Your task to perform on an android device: add a contact in the contacts app Image 0: 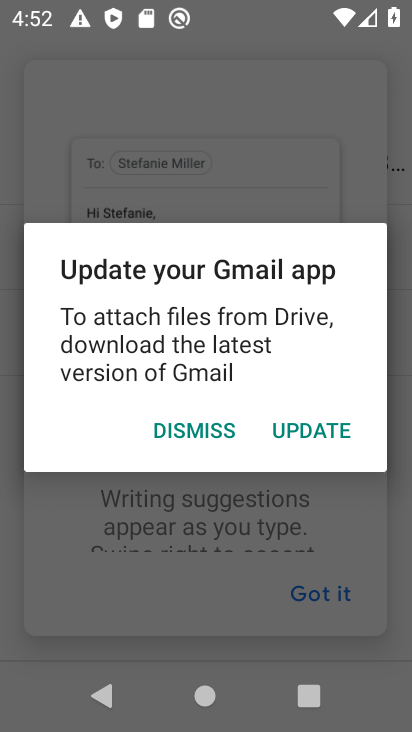
Step 0: click (194, 694)
Your task to perform on an android device: add a contact in the contacts app Image 1: 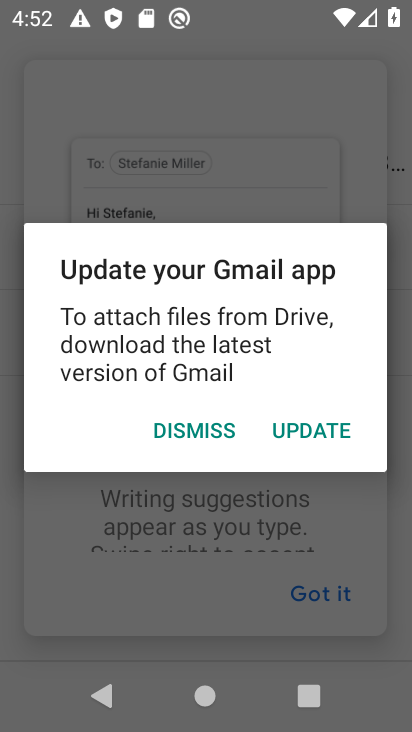
Step 1: click (163, 426)
Your task to perform on an android device: add a contact in the contacts app Image 2: 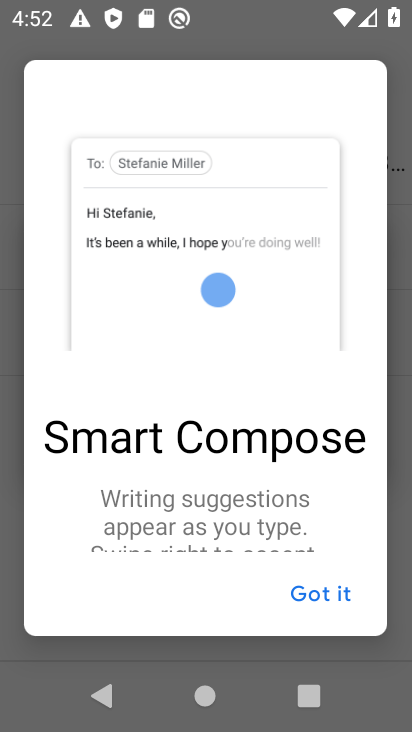
Step 2: click (207, 699)
Your task to perform on an android device: add a contact in the contacts app Image 3: 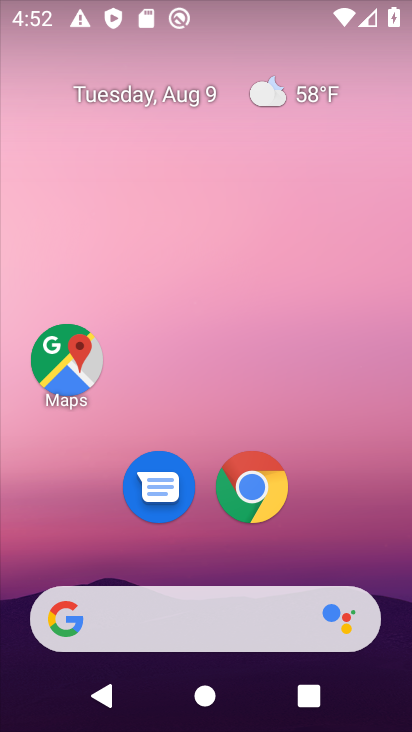
Step 3: drag from (70, 564) to (91, 133)
Your task to perform on an android device: add a contact in the contacts app Image 4: 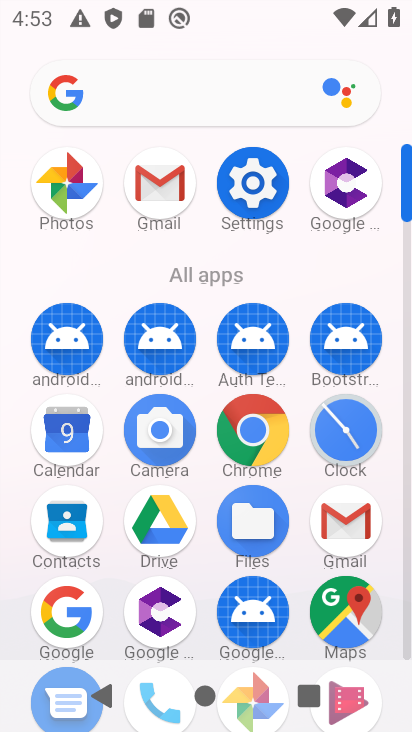
Step 4: click (150, 702)
Your task to perform on an android device: add a contact in the contacts app Image 5: 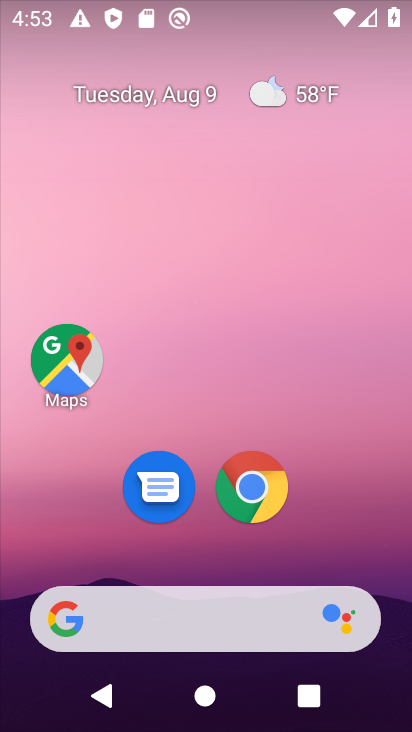
Step 5: drag from (176, 193) to (172, 99)
Your task to perform on an android device: add a contact in the contacts app Image 6: 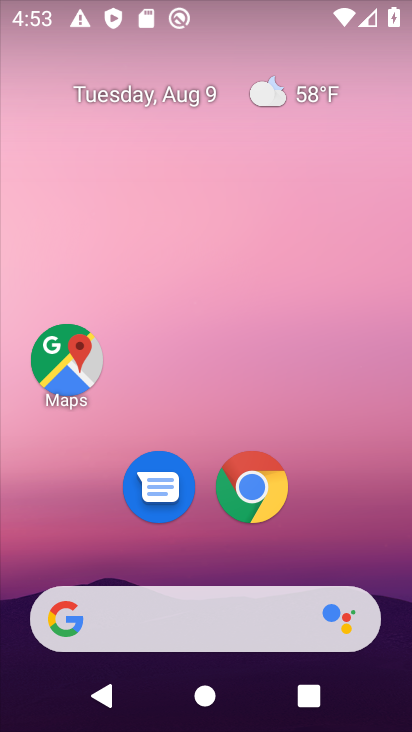
Step 6: drag from (105, 518) to (118, 45)
Your task to perform on an android device: add a contact in the contacts app Image 7: 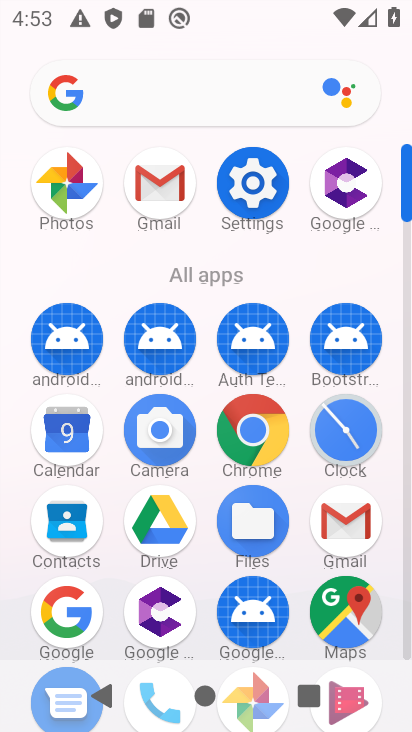
Step 7: click (75, 525)
Your task to perform on an android device: add a contact in the contacts app Image 8: 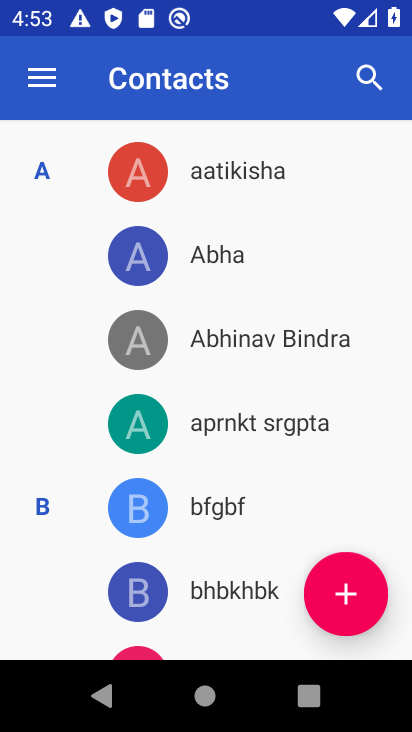
Step 8: click (345, 593)
Your task to perform on an android device: add a contact in the contacts app Image 9: 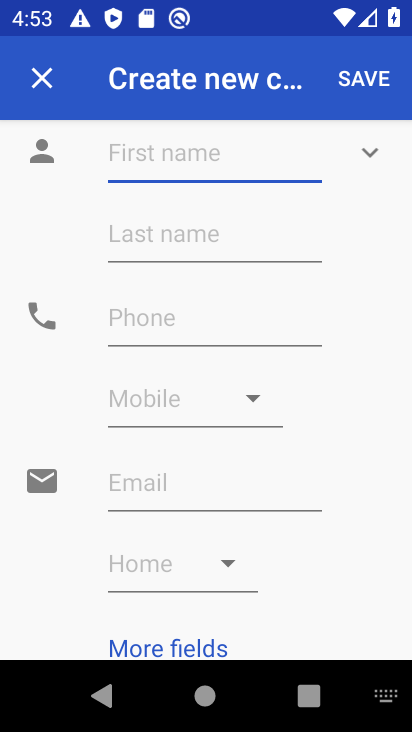
Step 9: type "gdfg"
Your task to perform on an android device: add a contact in the contacts app Image 10: 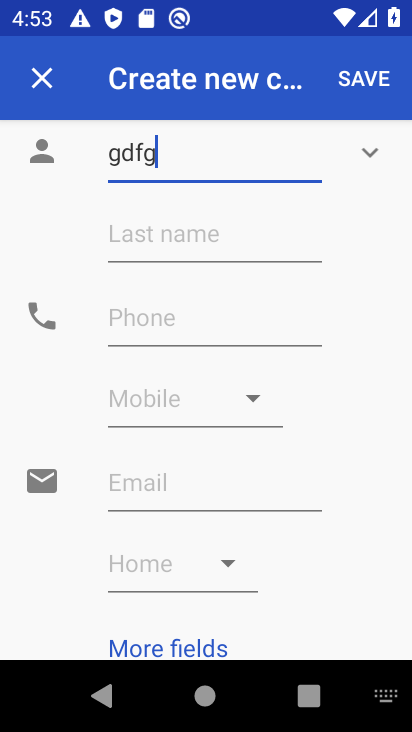
Step 10: click (204, 320)
Your task to perform on an android device: add a contact in the contacts app Image 11: 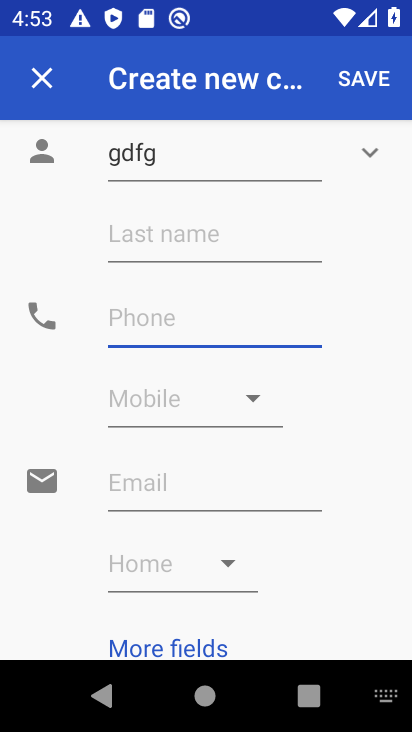
Step 11: type "5433"
Your task to perform on an android device: add a contact in the contacts app Image 12: 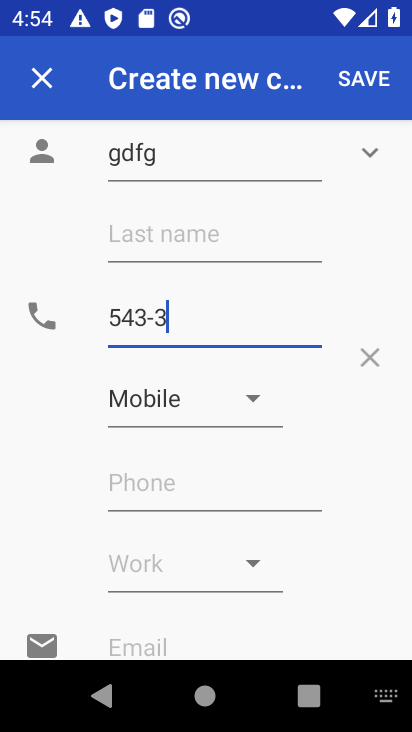
Step 12: click (371, 73)
Your task to perform on an android device: add a contact in the contacts app Image 13: 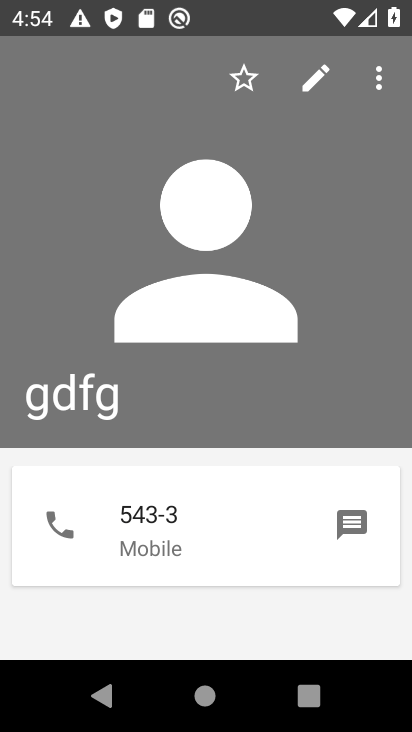
Step 13: task complete